Your task to perform on an android device: move an email to a new category in the gmail app Image 0: 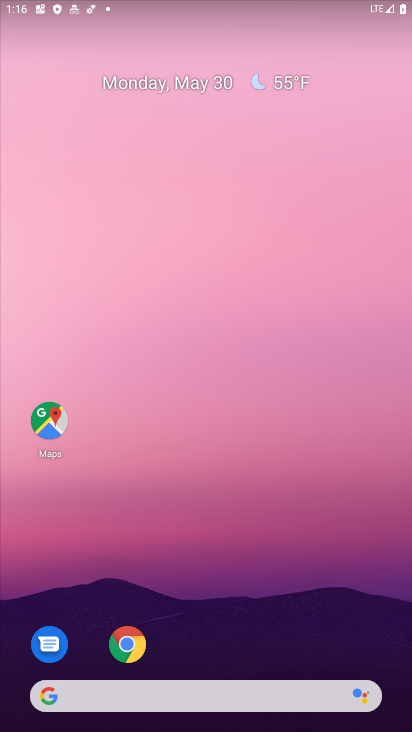
Step 0: drag from (288, 615) to (149, 42)
Your task to perform on an android device: move an email to a new category in the gmail app Image 1: 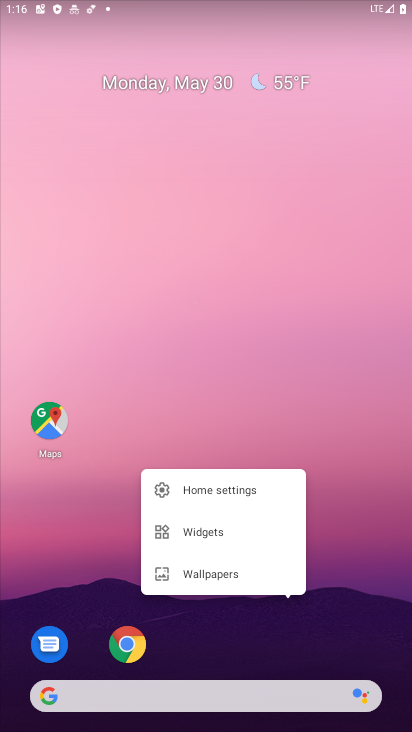
Step 1: click (309, 351)
Your task to perform on an android device: move an email to a new category in the gmail app Image 2: 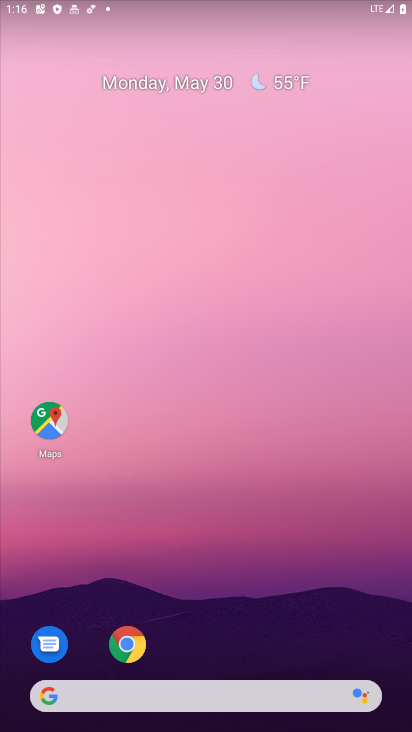
Step 2: drag from (291, 621) to (267, 133)
Your task to perform on an android device: move an email to a new category in the gmail app Image 3: 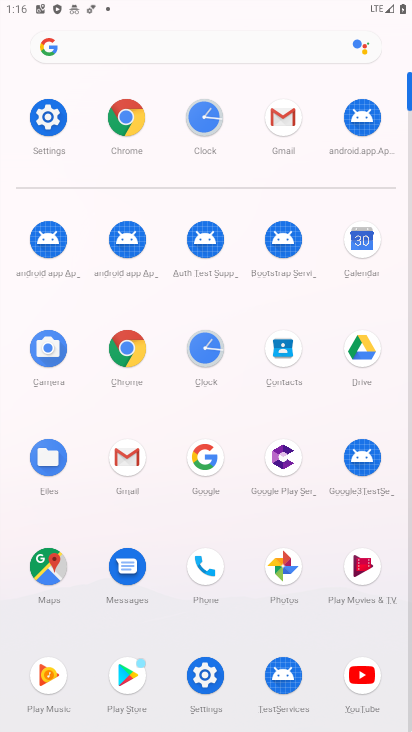
Step 3: click (269, 125)
Your task to perform on an android device: move an email to a new category in the gmail app Image 4: 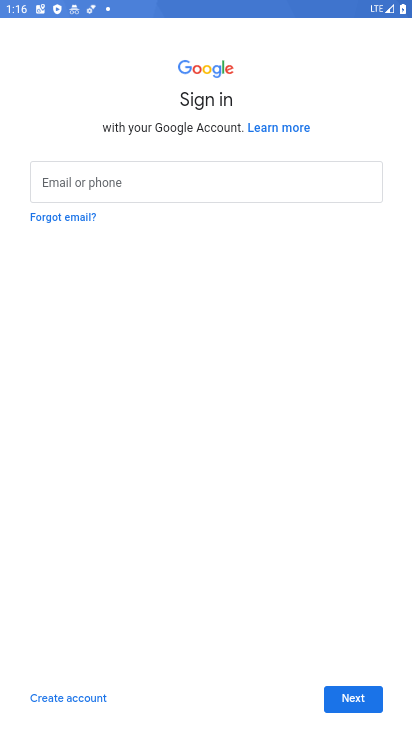
Step 4: task complete